Your task to perform on an android device: clear all cookies in the chrome app Image 0: 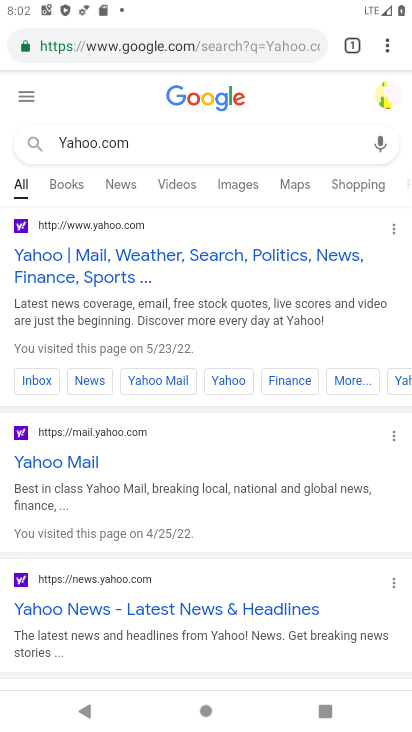
Step 0: click (388, 45)
Your task to perform on an android device: clear all cookies in the chrome app Image 1: 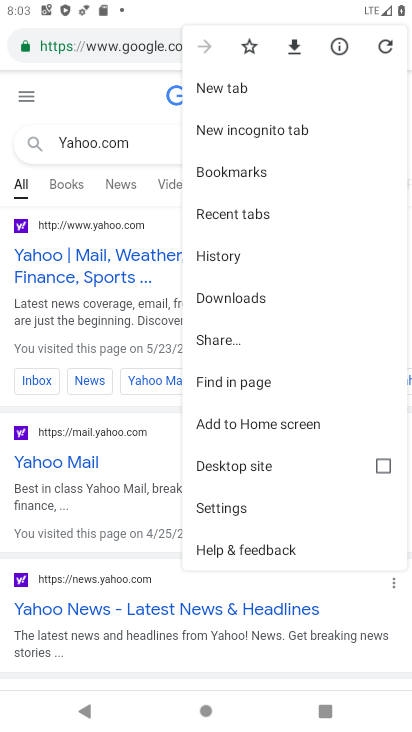
Step 1: click (223, 250)
Your task to perform on an android device: clear all cookies in the chrome app Image 2: 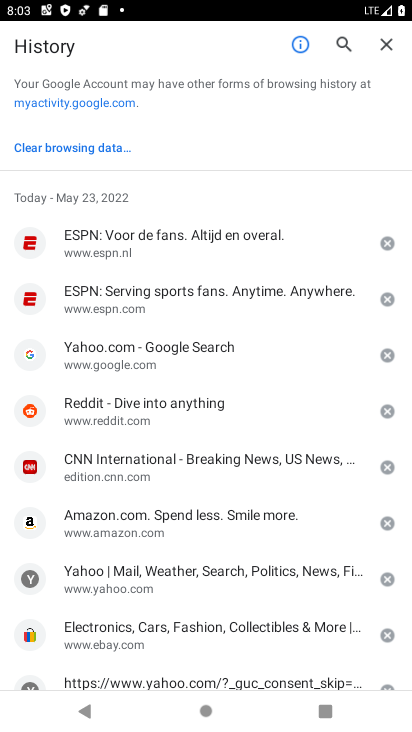
Step 2: click (109, 145)
Your task to perform on an android device: clear all cookies in the chrome app Image 3: 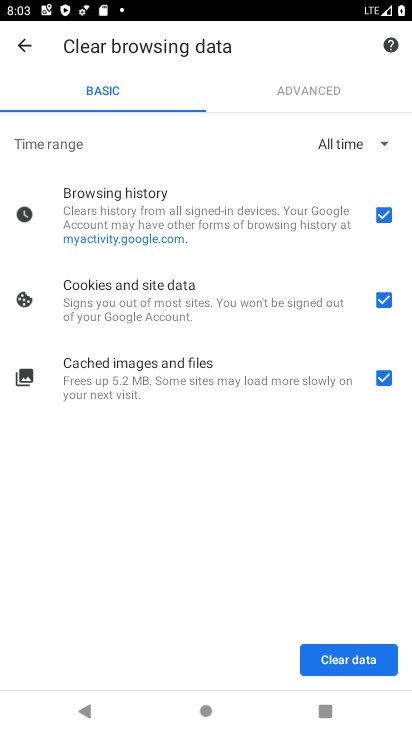
Step 3: click (367, 656)
Your task to perform on an android device: clear all cookies in the chrome app Image 4: 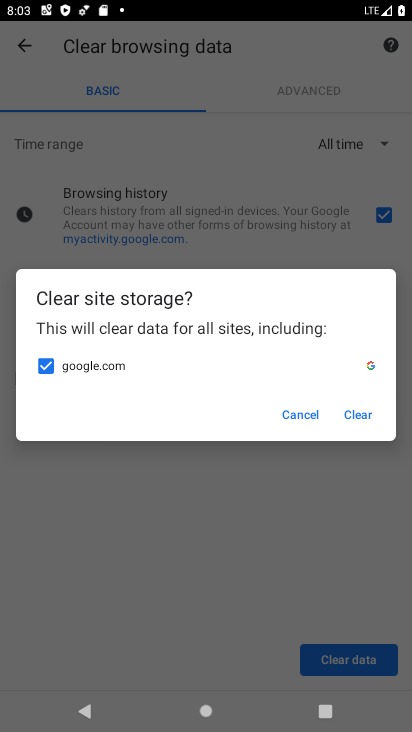
Step 4: click (358, 404)
Your task to perform on an android device: clear all cookies in the chrome app Image 5: 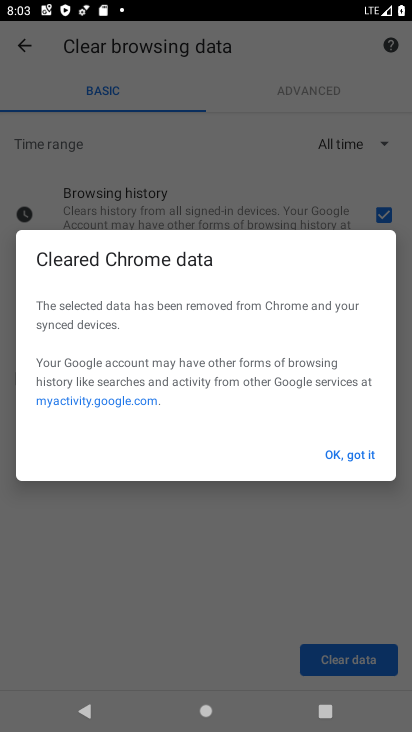
Step 5: click (355, 450)
Your task to perform on an android device: clear all cookies in the chrome app Image 6: 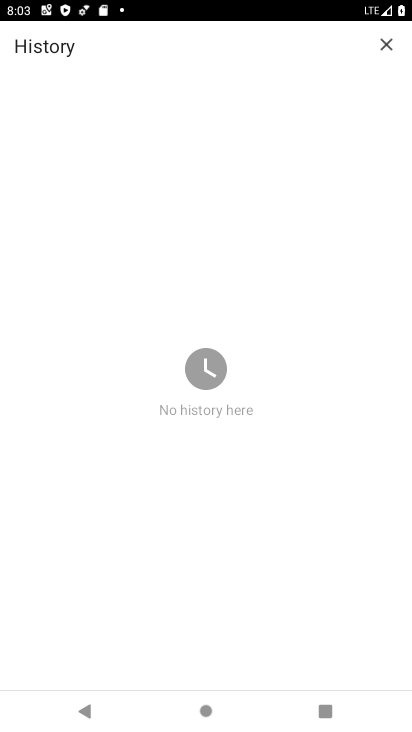
Step 6: task complete